Your task to perform on an android device: Check the weather Image 0: 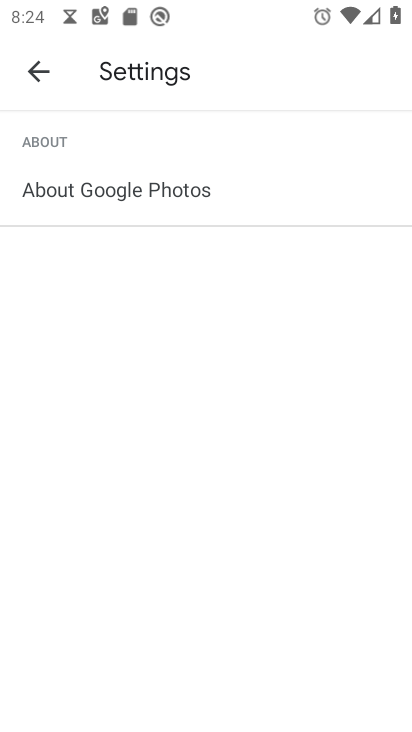
Step 0: press home button
Your task to perform on an android device: Check the weather Image 1: 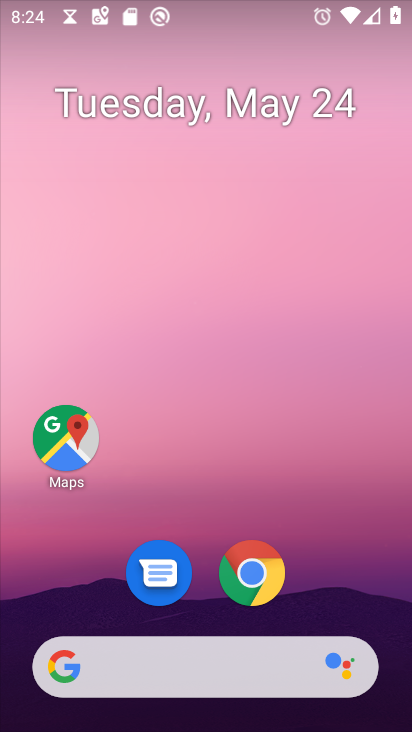
Step 1: click (73, 661)
Your task to perform on an android device: Check the weather Image 2: 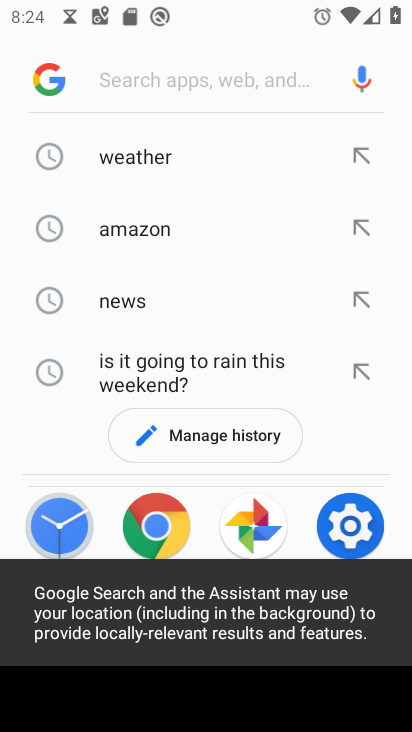
Step 2: click (37, 83)
Your task to perform on an android device: Check the weather Image 3: 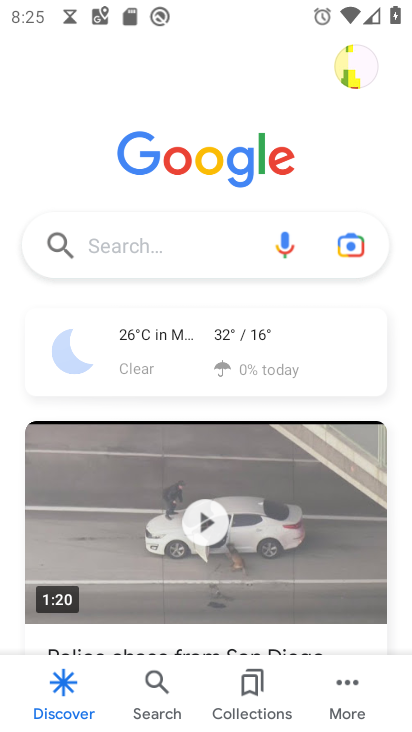
Step 3: click (242, 349)
Your task to perform on an android device: Check the weather Image 4: 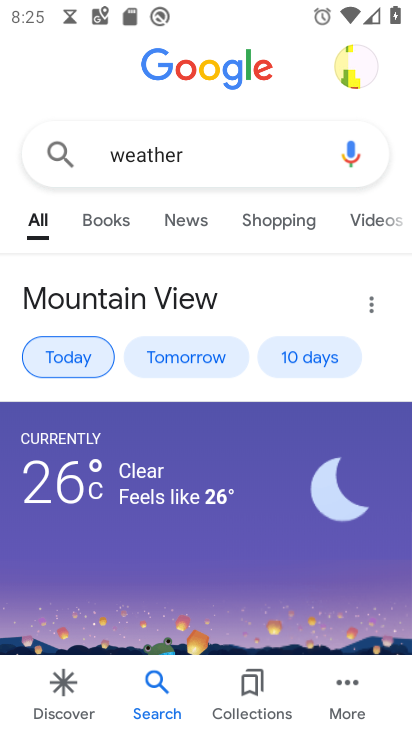
Step 4: task complete